Your task to perform on an android device: Open settings on Google Maps Image 0: 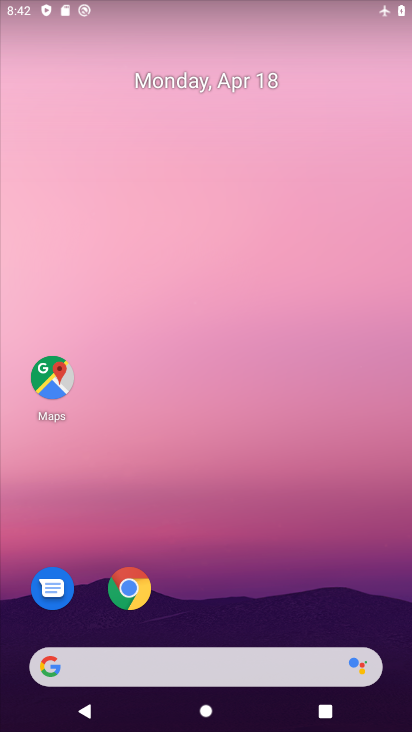
Step 0: drag from (229, 602) to (230, 197)
Your task to perform on an android device: Open settings on Google Maps Image 1: 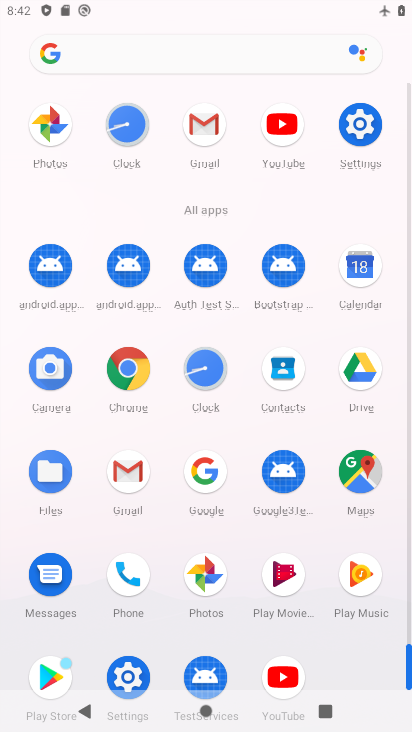
Step 1: click (358, 462)
Your task to perform on an android device: Open settings on Google Maps Image 2: 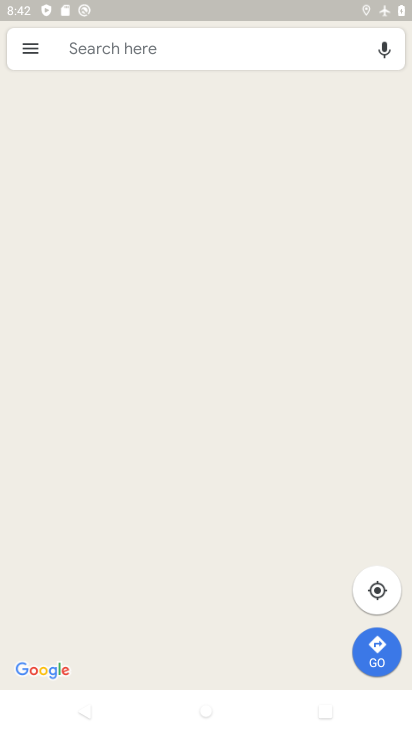
Step 2: click (24, 50)
Your task to perform on an android device: Open settings on Google Maps Image 3: 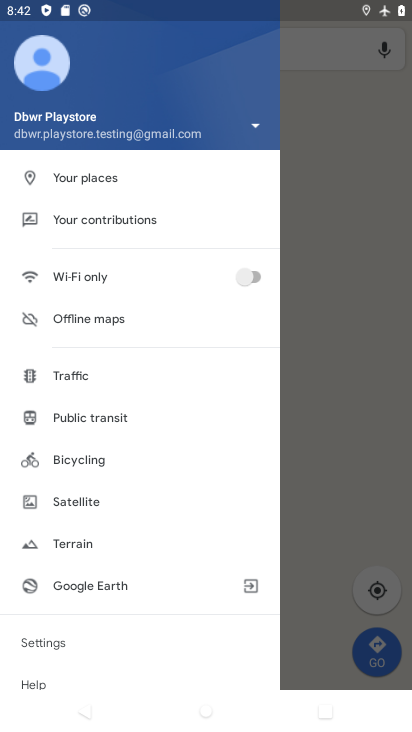
Step 3: click (105, 641)
Your task to perform on an android device: Open settings on Google Maps Image 4: 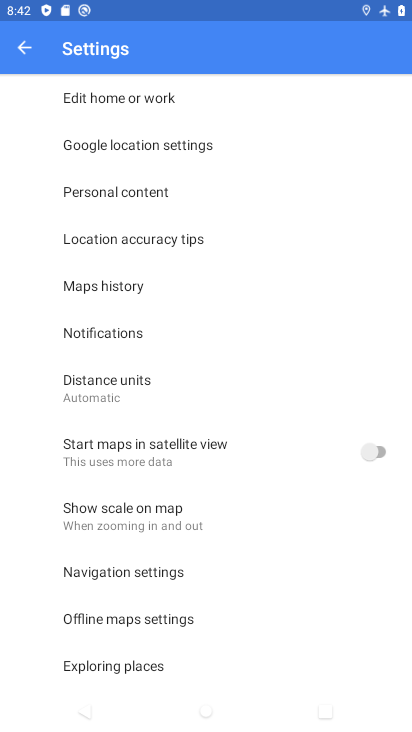
Step 4: task complete